Your task to perform on an android device: turn on improve location accuracy Image 0: 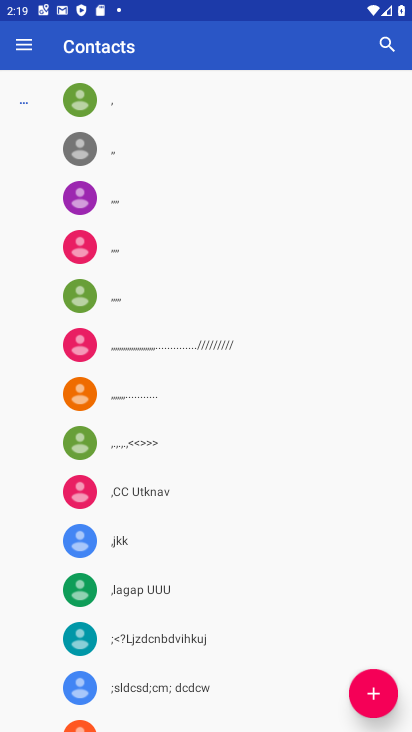
Step 0: press home button
Your task to perform on an android device: turn on improve location accuracy Image 1: 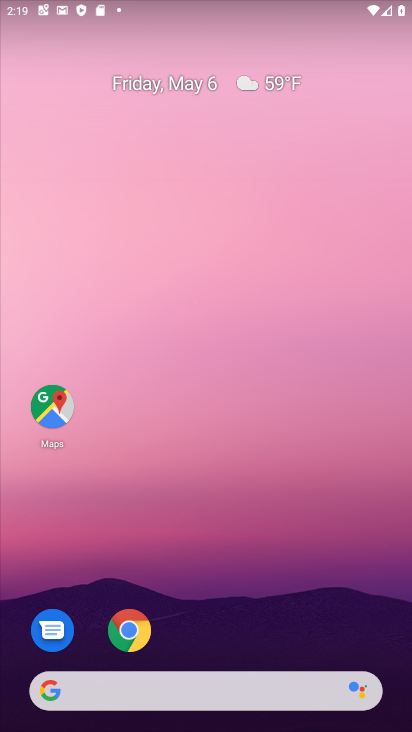
Step 1: drag from (227, 612) to (258, 109)
Your task to perform on an android device: turn on improve location accuracy Image 2: 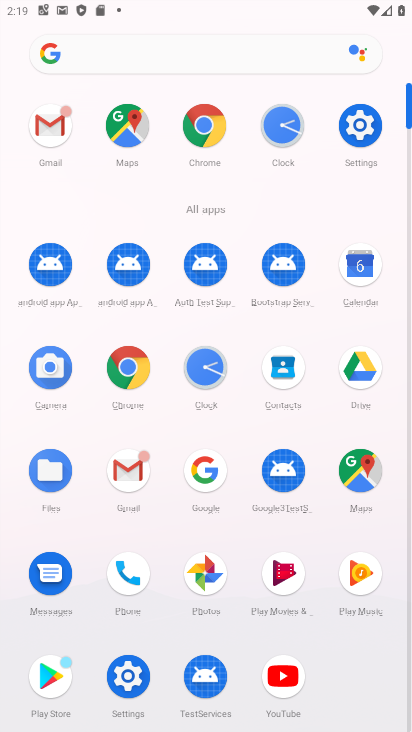
Step 2: click (345, 123)
Your task to perform on an android device: turn on improve location accuracy Image 3: 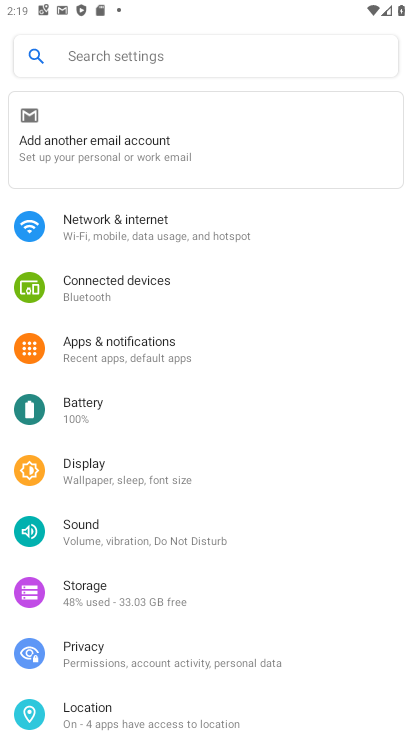
Step 3: click (131, 697)
Your task to perform on an android device: turn on improve location accuracy Image 4: 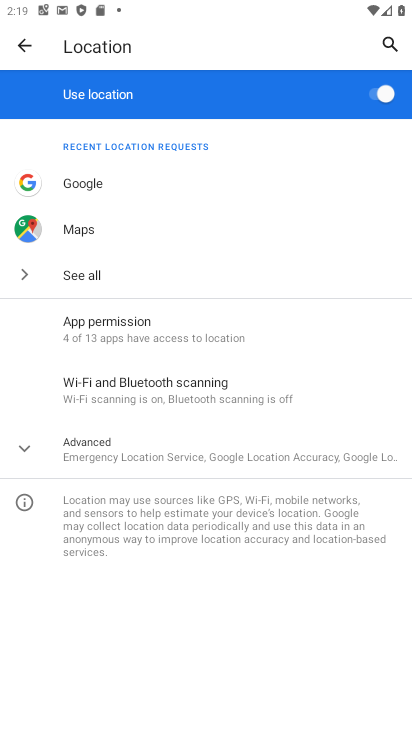
Step 4: click (55, 443)
Your task to perform on an android device: turn on improve location accuracy Image 5: 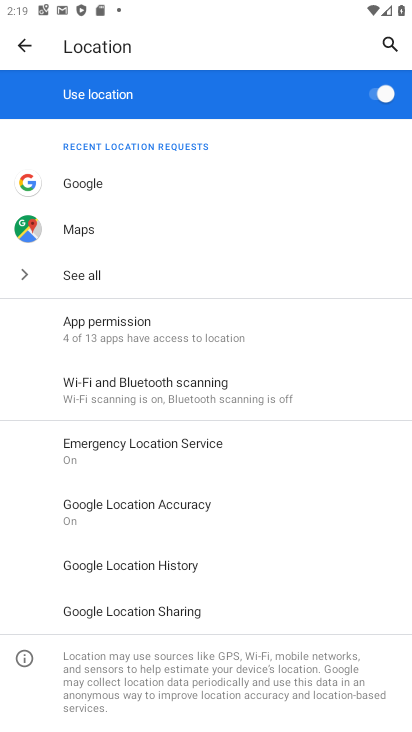
Step 5: click (121, 515)
Your task to perform on an android device: turn on improve location accuracy Image 6: 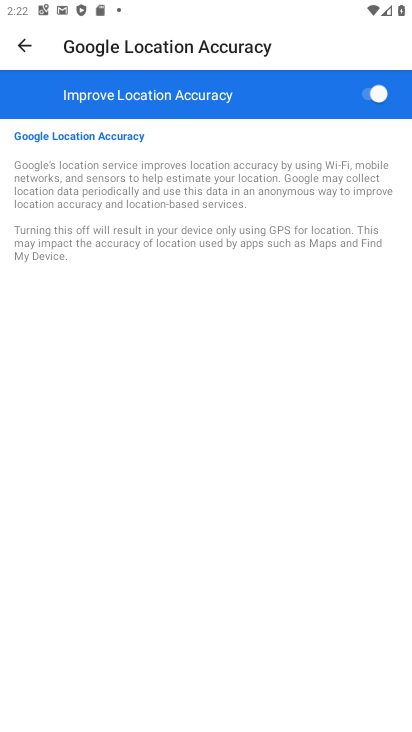
Step 6: task complete